Your task to perform on an android device: Go to CNN.com Image 0: 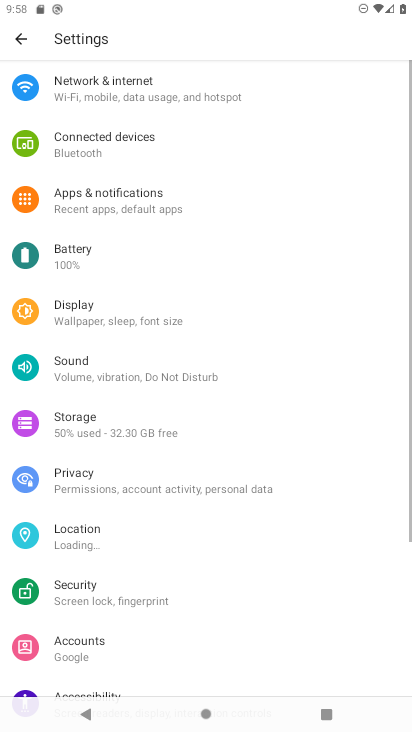
Step 0: press home button
Your task to perform on an android device: Go to CNN.com Image 1: 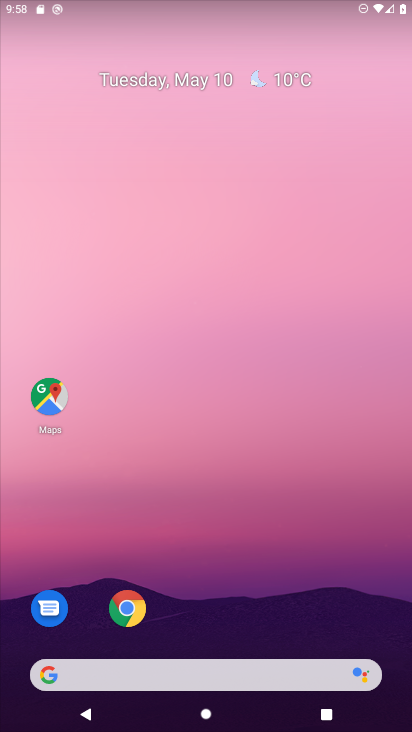
Step 1: drag from (326, 259) to (270, 8)
Your task to perform on an android device: Go to CNN.com Image 2: 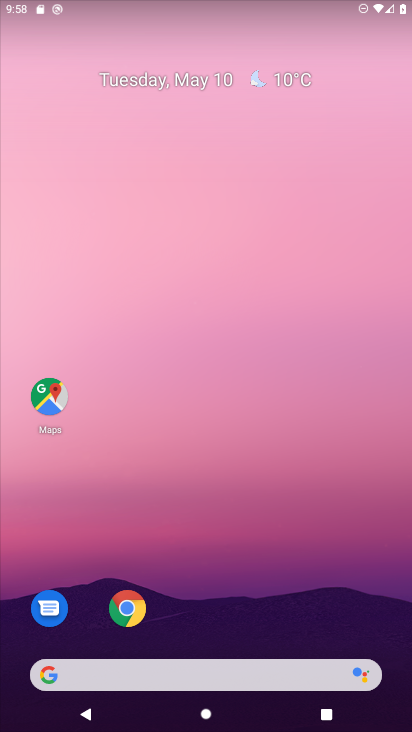
Step 2: drag from (361, 632) to (269, 104)
Your task to perform on an android device: Go to CNN.com Image 3: 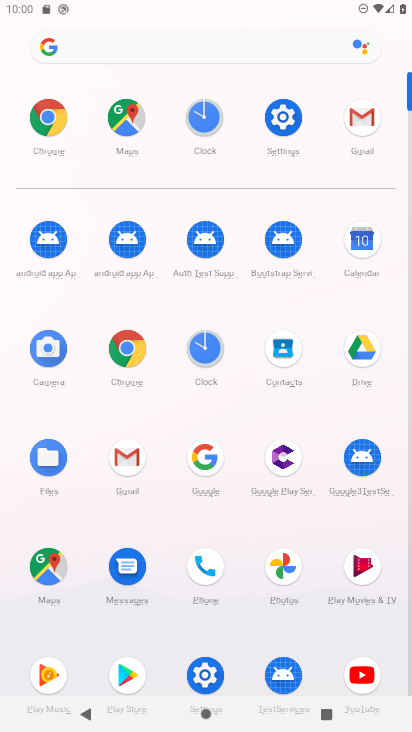
Step 3: click (135, 351)
Your task to perform on an android device: Go to CNN.com Image 4: 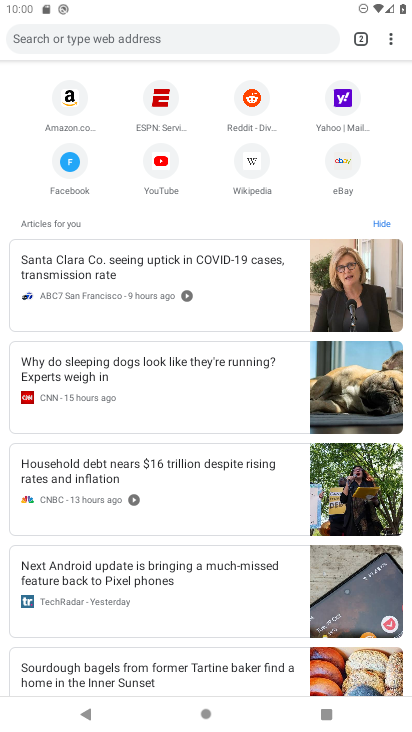
Step 4: click (178, 34)
Your task to perform on an android device: Go to CNN.com Image 5: 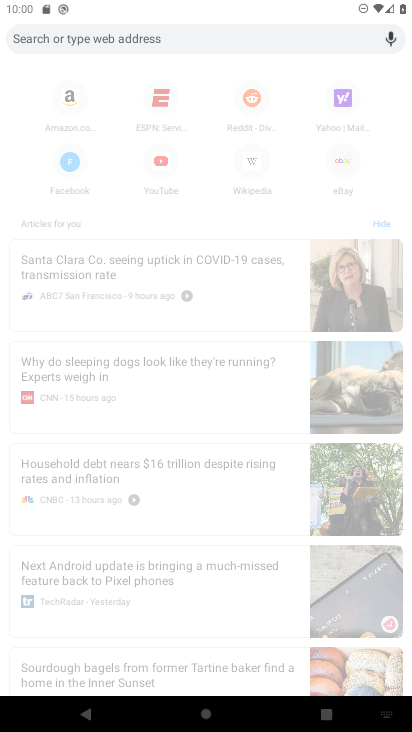
Step 5: type "cnn.com"
Your task to perform on an android device: Go to CNN.com Image 6: 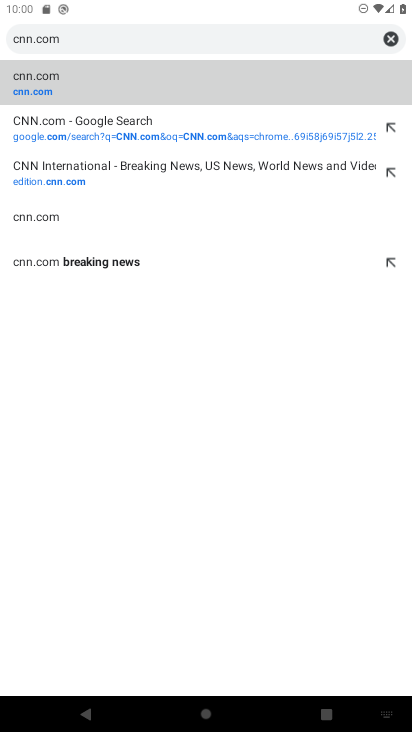
Step 6: click (123, 93)
Your task to perform on an android device: Go to CNN.com Image 7: 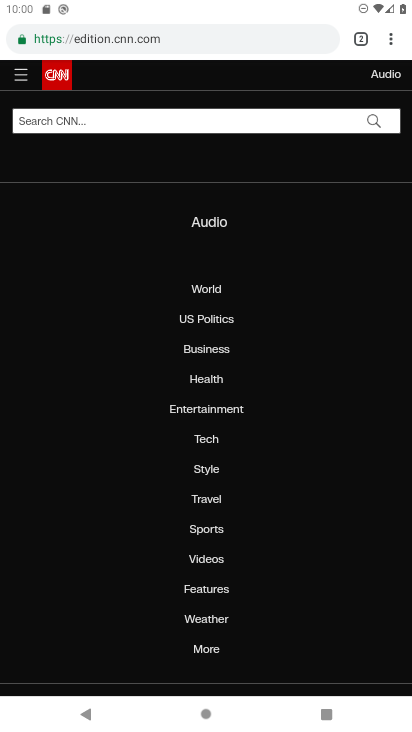
Step 7: task complete